Your task to perform on an android device: Open wifi settings Image 0: 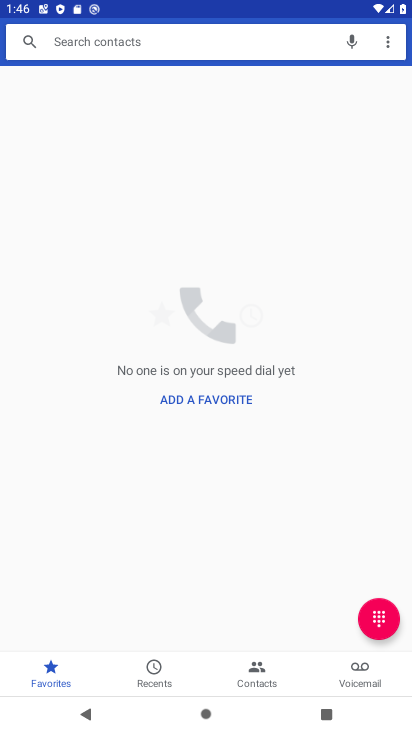
Step 0: press home button
Your task to perform on an android device: Open wifi settings Image 1: 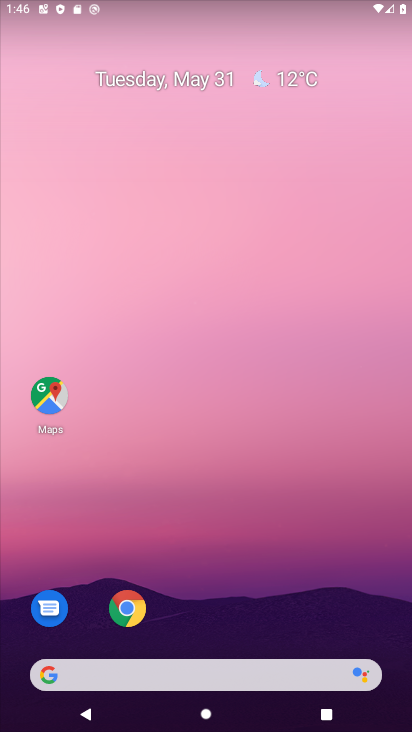
Step 1: drag from (330, 572) to (313, 148)
Your task to perform on an android device: Open wifi settings Image 2: 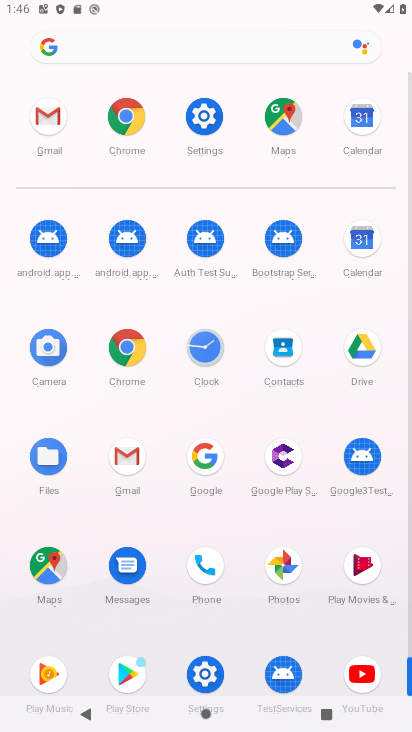
Step 2: click (206, 663)
Your task to perform on an android device: Open wifi settings Image 3: 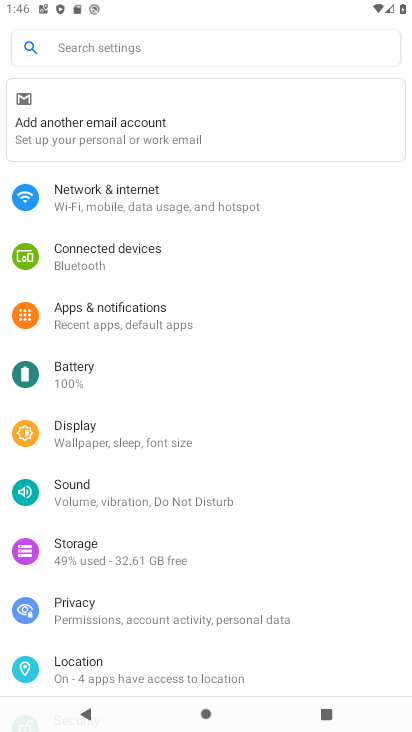
Step 3: drag from (255, 528) to (266, 294)
Your task to perform on an android device: Open wifi settings Image 4: 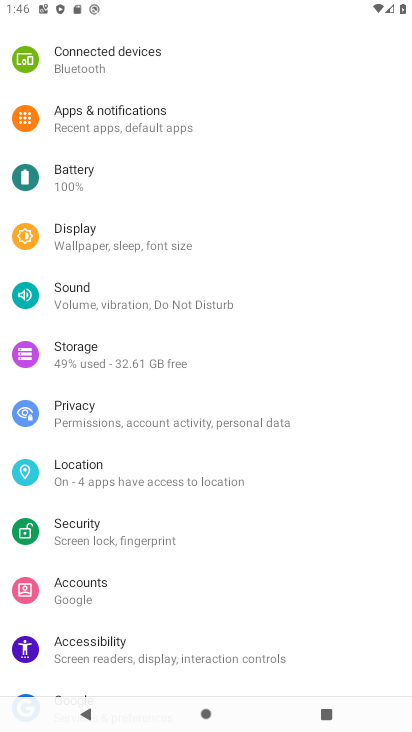
Step 4: drag from (234, 561) to (287, 294)
Your task to perform on an android device: Open wifi settings Image 5: 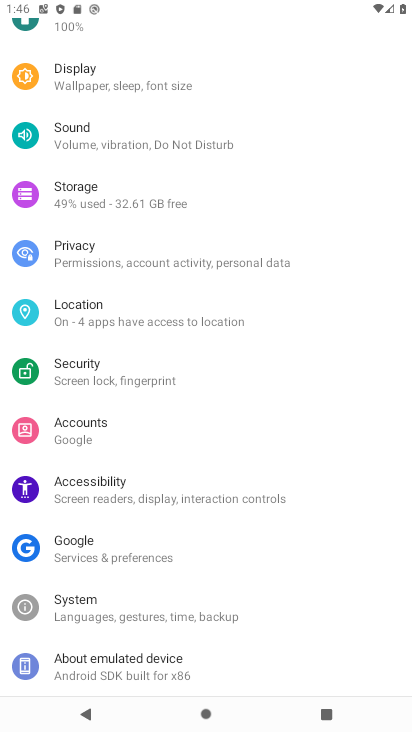
Step 5: drag from (226, 88) to (270, 443)
Your task to perform on an android device: Open wifi settings Image 6: 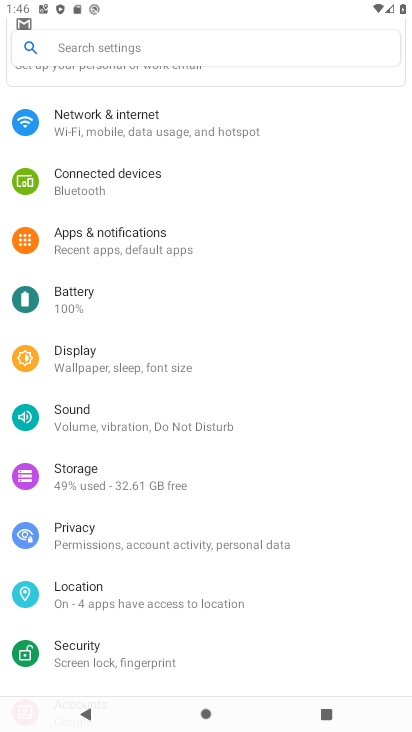
Step 6: click (161, 123)
Your task to perform on an android device: Open wifi settings Image 7: 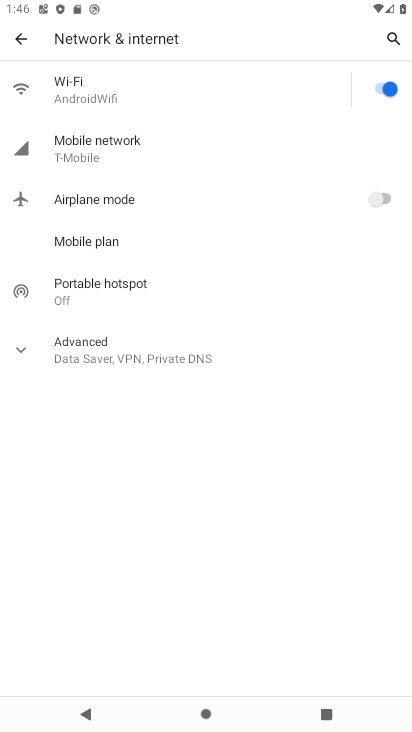
Step 7: click (112, 92)
Your task to perform on an android device: Open wifi settings Image 8: 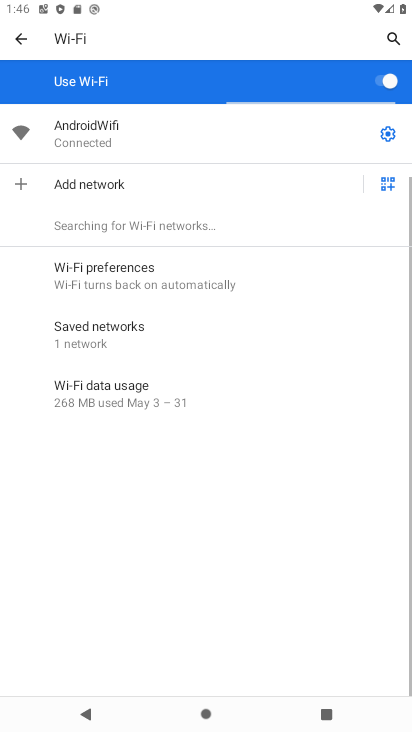
Step 8: click (381, 127)
Your task to perform on an android device: Open wifi settings Image 9: 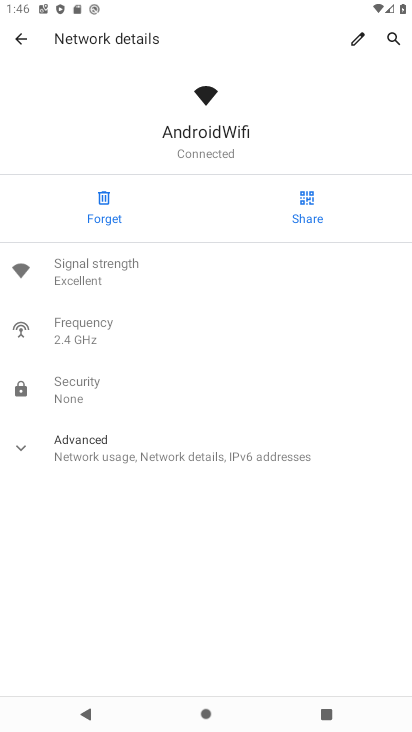
Step 9: task complete